Your task to perform on an android device: Go to Yahoo.com Image 0: 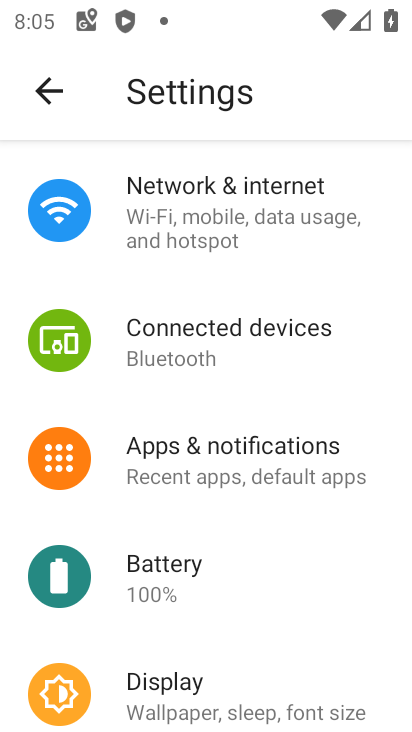
Step 0: press home button
Your task to perform on an android device: Go to Yahoo.com Image 1: 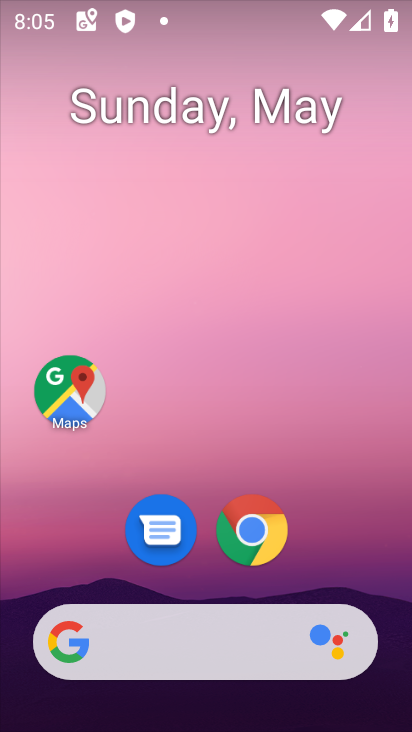
Step 1: click (252, 535)
Your task to perform on an android device: Go to Yahoo.com Image 2: 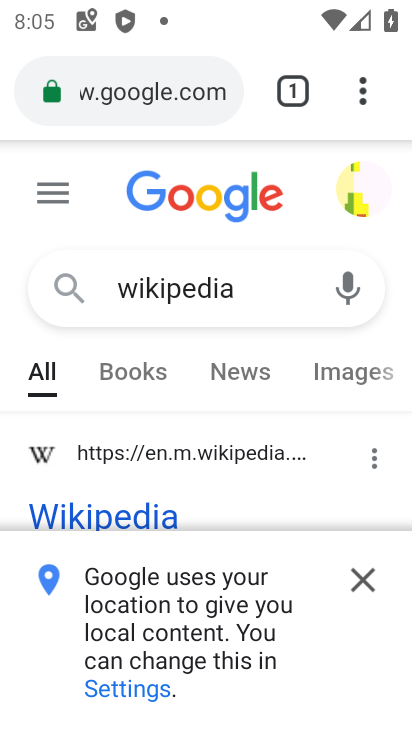
Step 2: click (109, 89)
Your task to perform on an android device: Go to Yahoo.com Image 3: 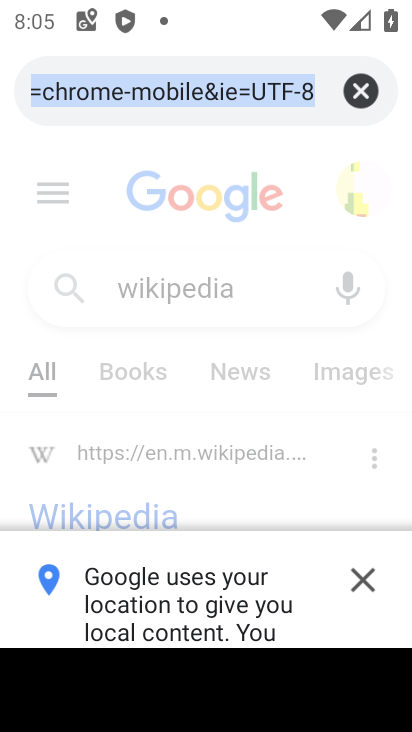
Step 3: click (344, 91)
Your task to perform on an android device: Go to Yahoo.com Image 4: 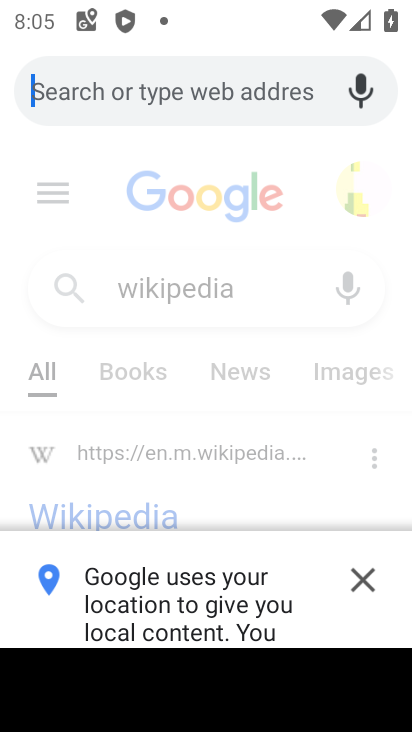
Step 4: type "yahoo.com"
Your task to perform on an android device: Go to Yahoo.com Image 5: 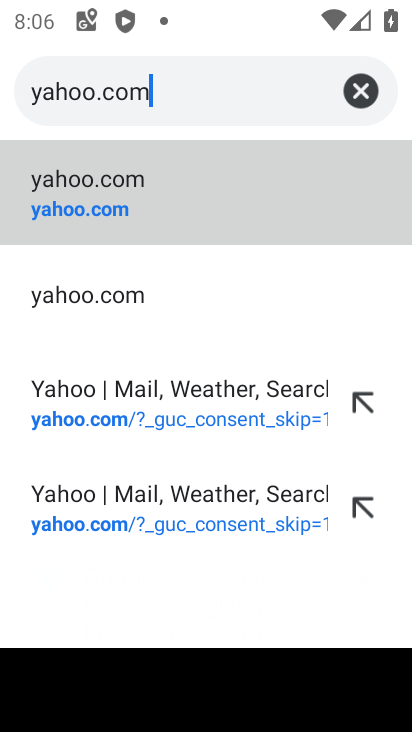
Step 5: click (99, 218)
Your task to perform on an android device: Go to Yahoo.com Image 6: 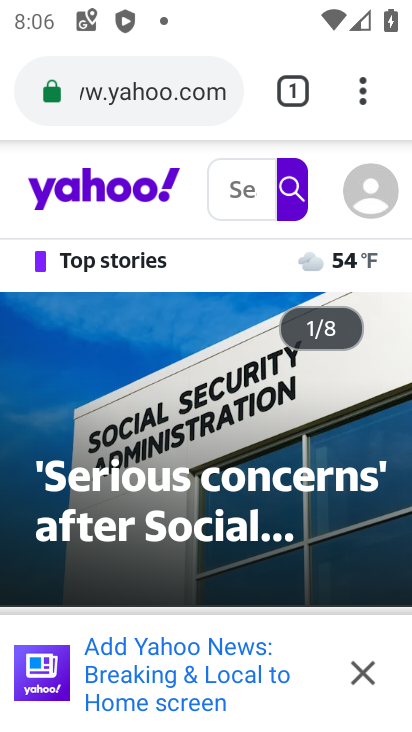
Step 6: task complete